Your task to perform on an android device: Go to settings Image 0: 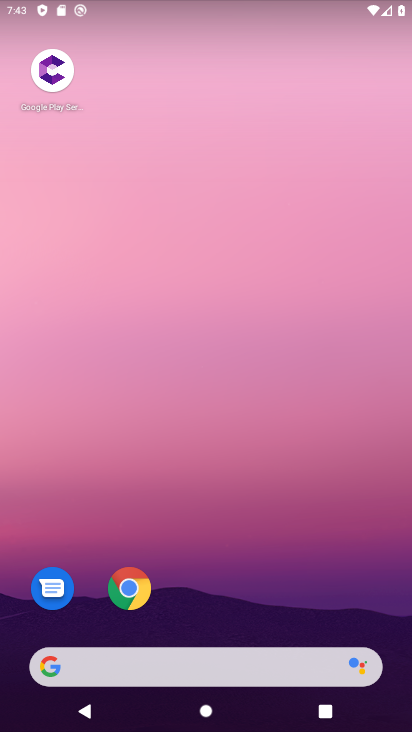
Step 0: drag from (394, 696) to (411, 38)
Your task to perform on an android device: Go to settings Image 1: 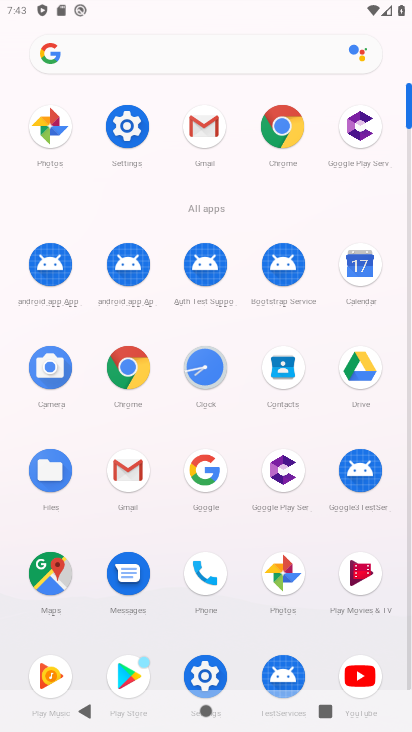
Step 1: click (124, 124)
Your task to perform on an android device: Go to settings Image 2: 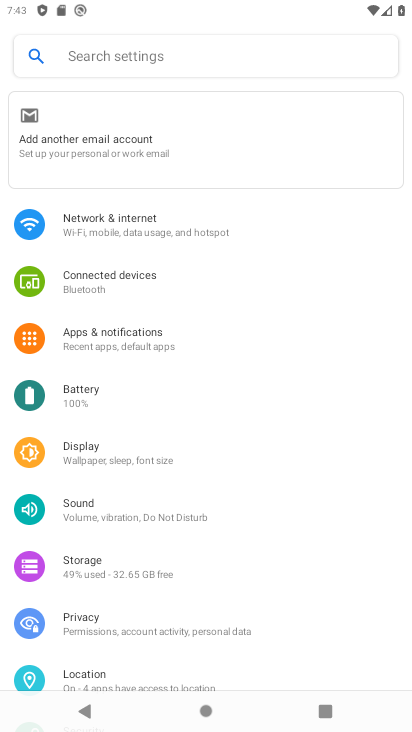
Step 2: task complete